Your task to perform on an android device: change notification settings in the gmail app Image 0: 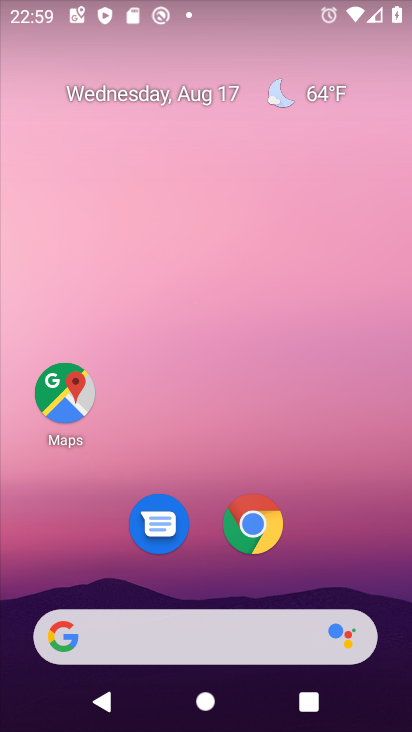
Step 0: drag from (313, 452) to (345, 8)
Your task to perform on an android device: change notification settings in the gmail app Image 1: 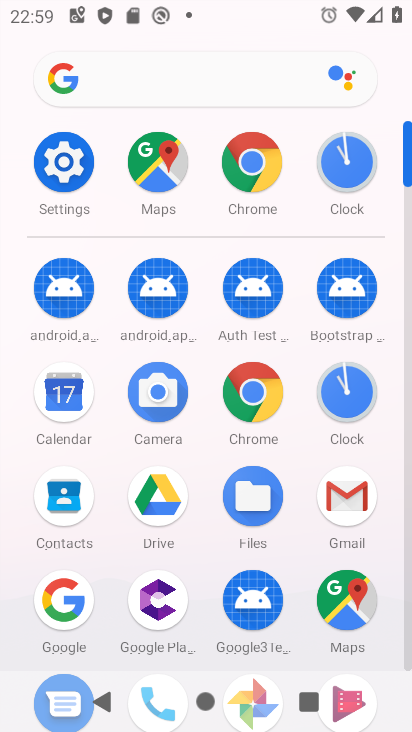
Step 1: click (346, 500)
Your task to perform on an android device: change notification settings in the gmail app Image 2: 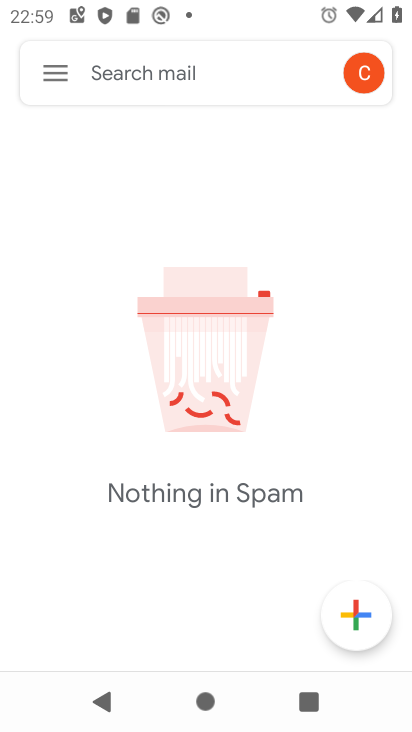
Step 2: click (57, 76)
Your task to perform on an android device: change notification settings in the gmail app Image 3: 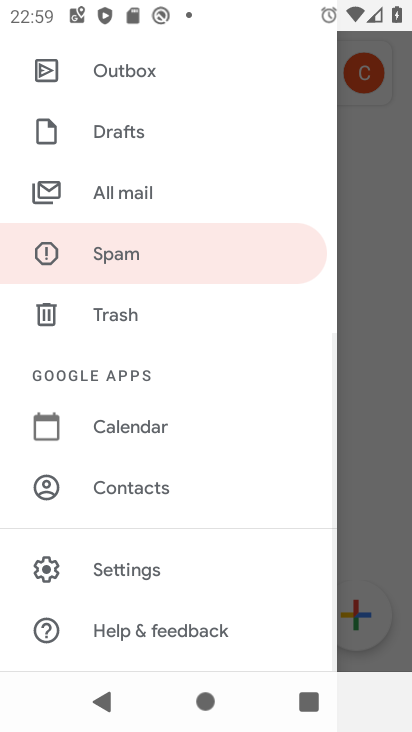
Step 3: click (130, 569)
Your task to perform on an android device: change notification settings in the gmail app Image 4: 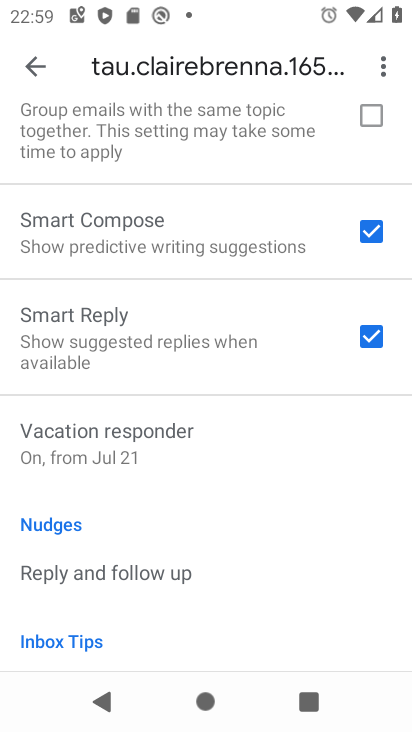
Step 4: drag from (222, 239) to (243, 574)
Your task to perform on an android device: change notification settings in the gmail app Image 5: 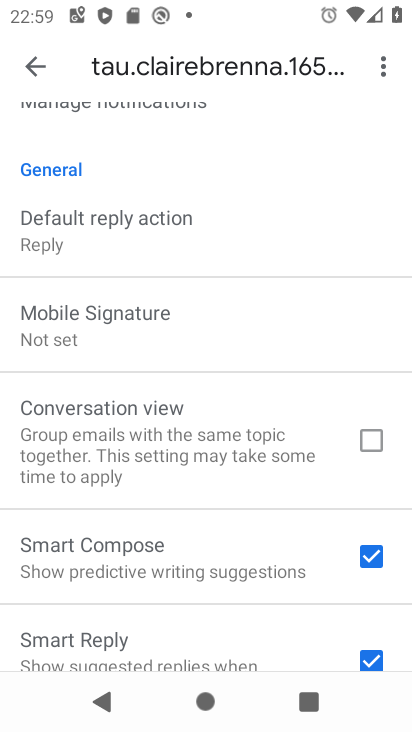
Step 5: drag from (235, 238) to (246, 561)
Your task to perform on an android device: change notification settings in the gmail app Image 6: 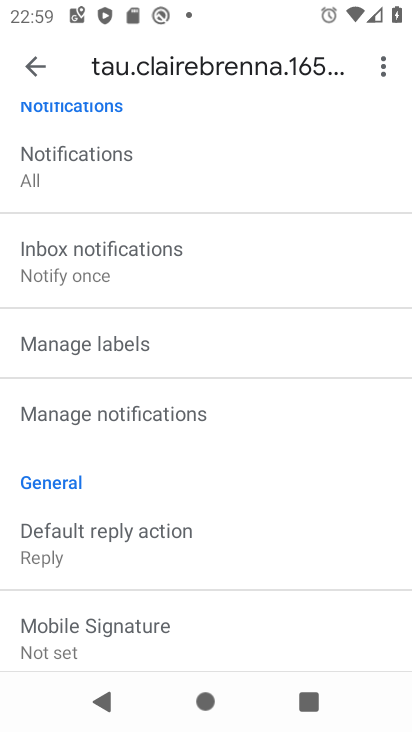
Step 6: click (237, 410)
Your task to perform on an android device: change notification settings in the gmail app Image 7: 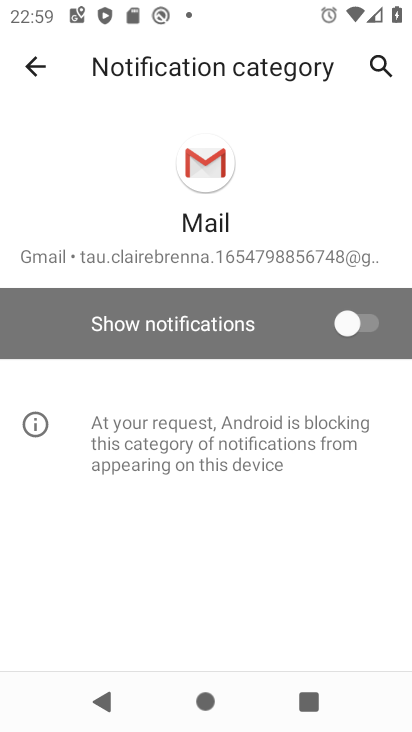
Step 7: click (349, 323)
Your task to perform on an android device: change notification settings in the gmail app Image 8: 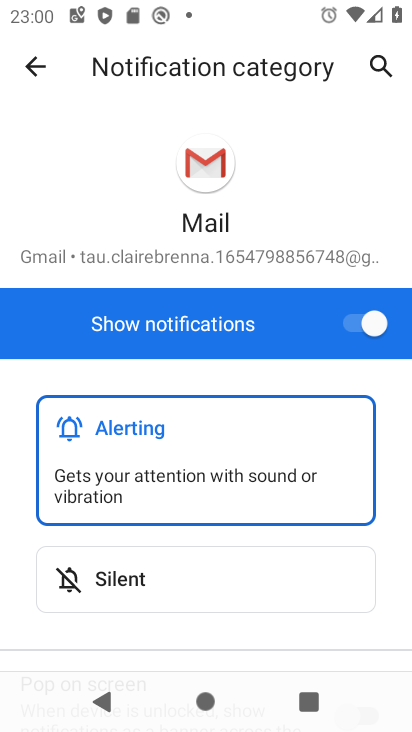
Step 8: task complete